Your task to perform on an android device: What's the weather today? Image 0: 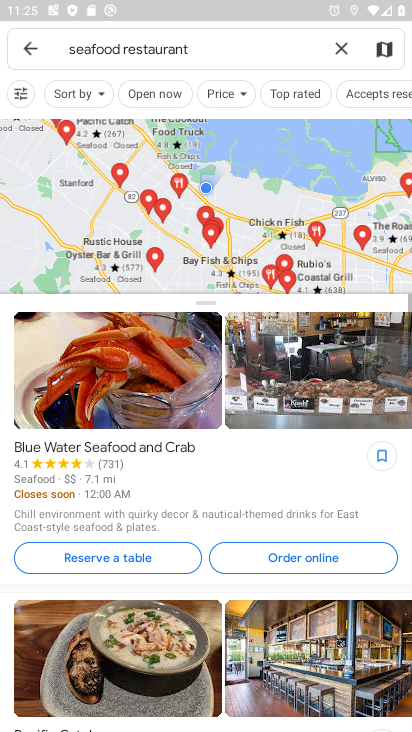
Step 0: drag from (202, 537) to (171, 77)
Your task to perform on an android device: What's the weather today? Image 1: 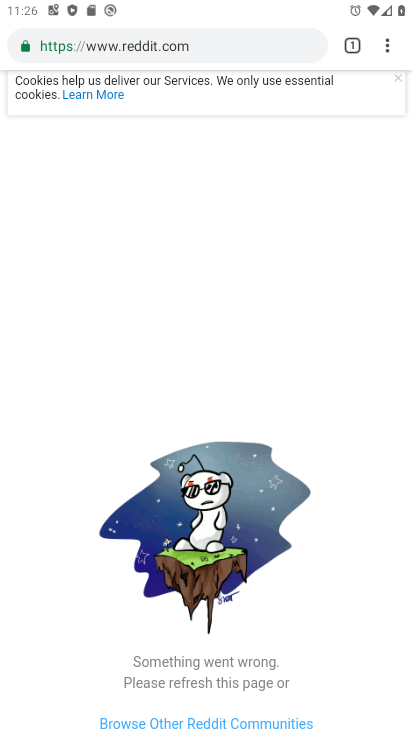
Step 1: press home button
Your task to perform on an android device: What's the weather today? Image 2: 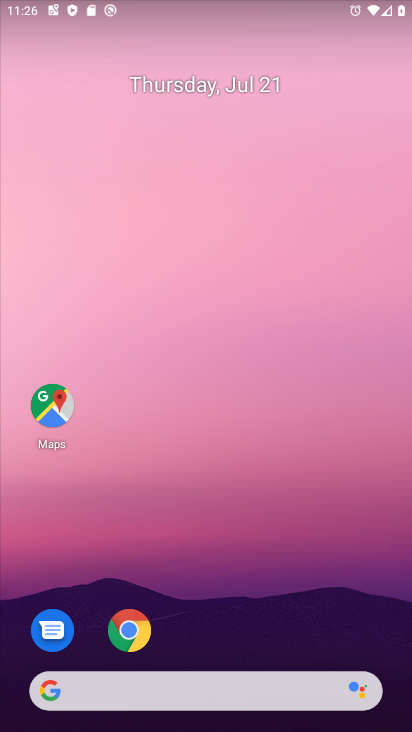
Step 2: drag from (210, 661) to (158, 96)
Your task to perform on an android device: What's the weather today? Image 3: 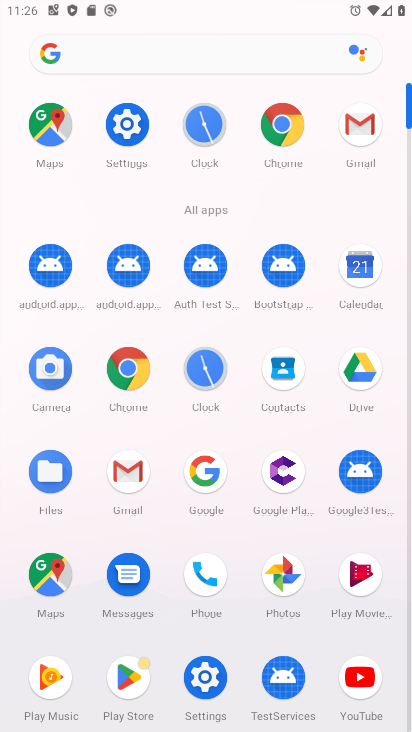
Step 3: click (211, 469)
Your task to perform on an android device: What's the weather today? Image 4: 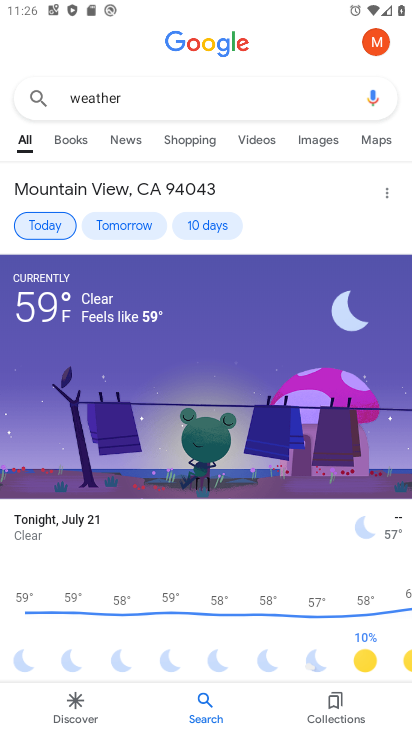
Step 4: task complete